Your task to perform on an android device: set an alarm Image 0: 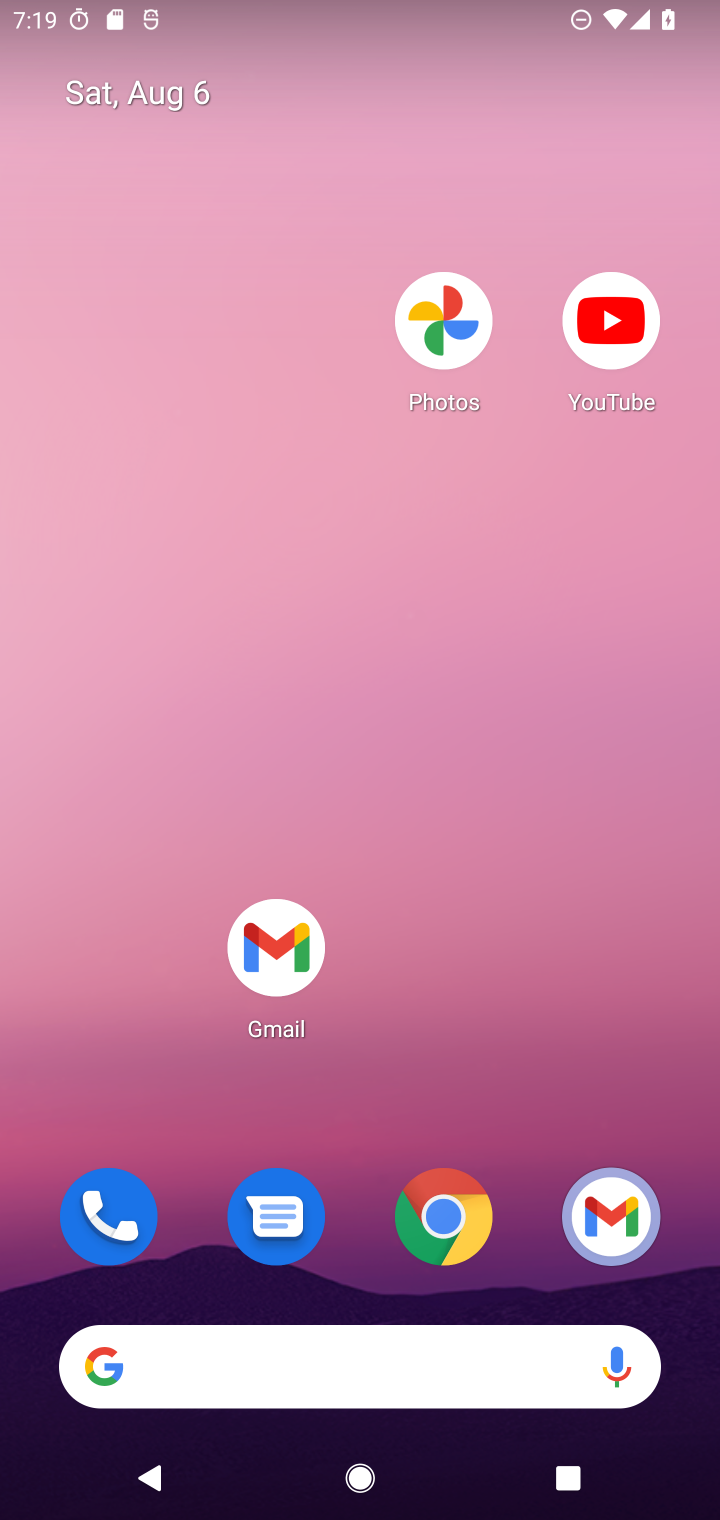
Step 0: drag from (527, 1062) to (576, 176)
Your task to perform on an android device: set an alarm Image 1: 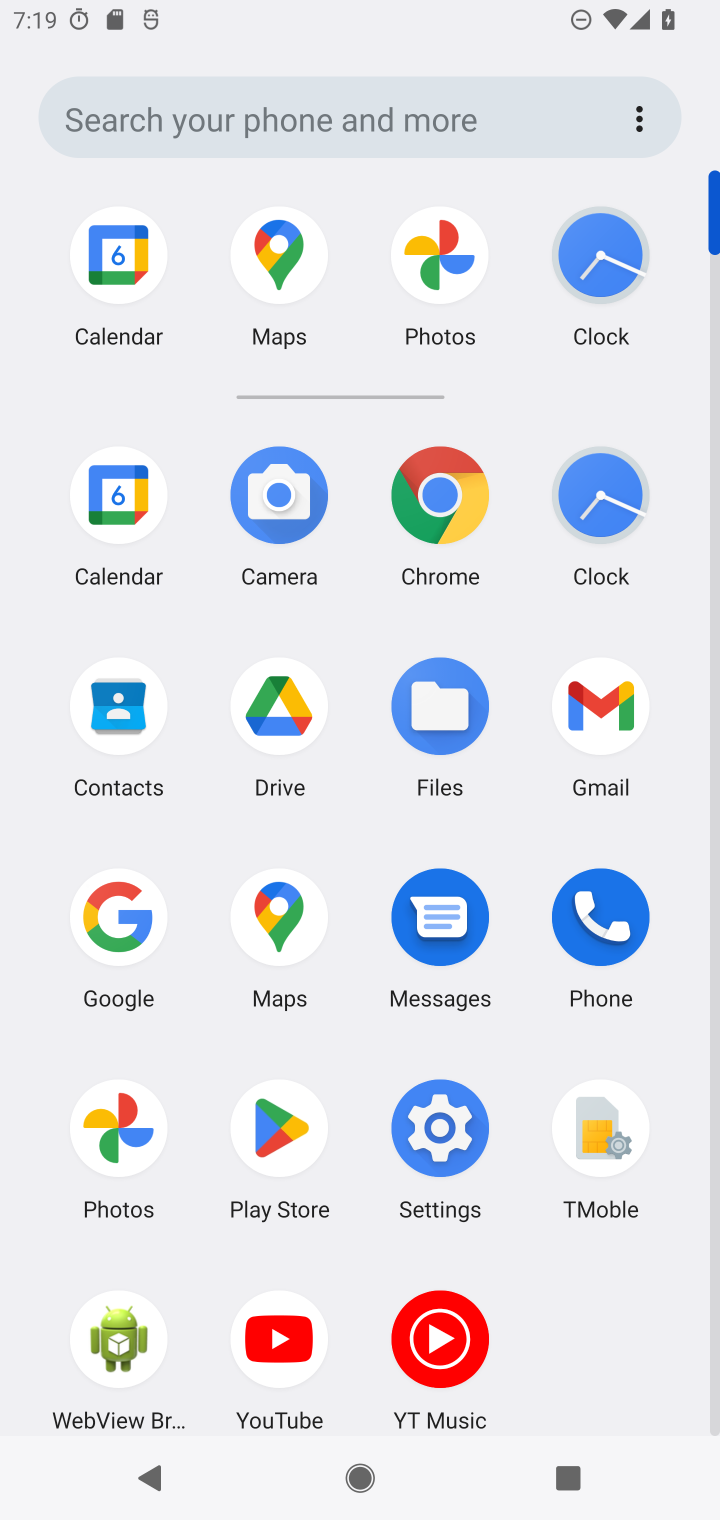
Step 1: click (589, 496)
Your task to perform on an android device: set an alarm Image 2: 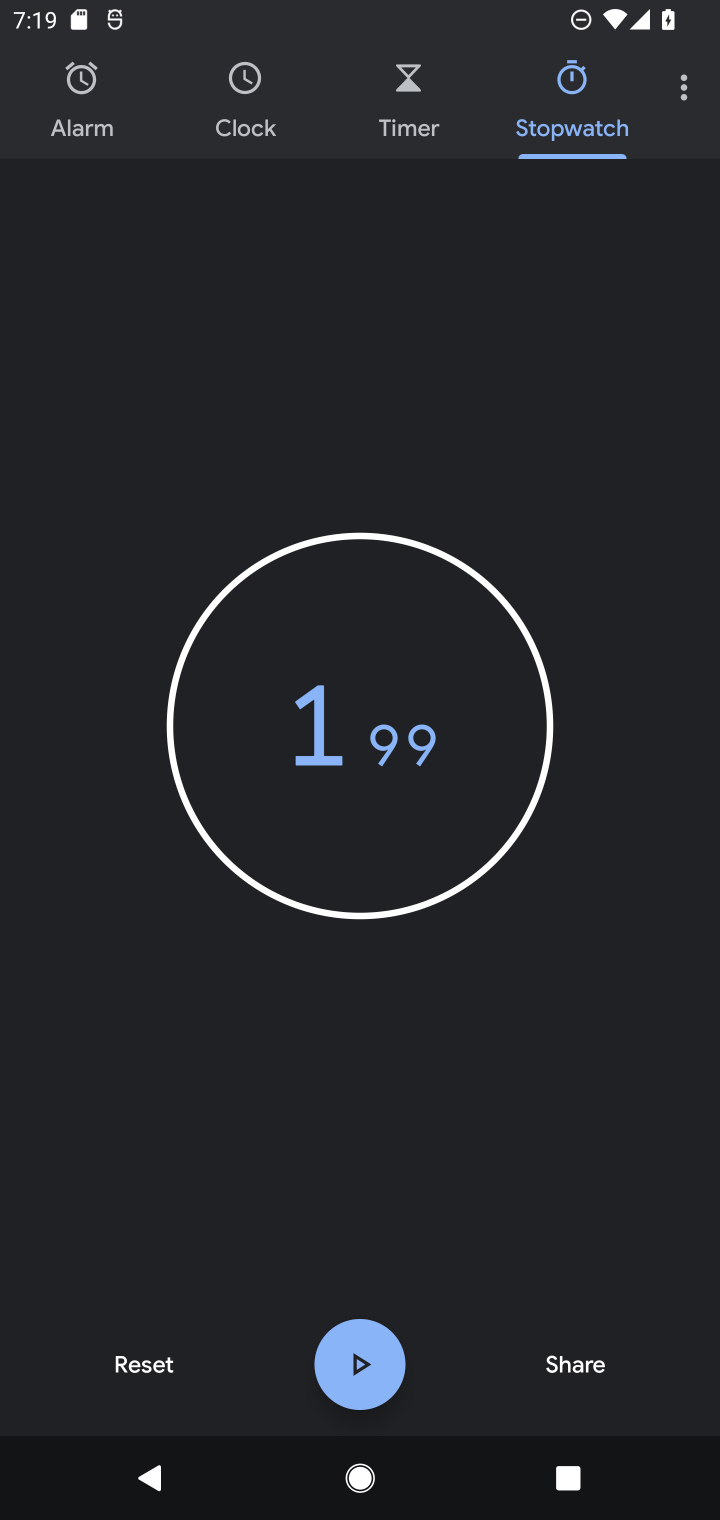
Step 2: click (79, 132)
Your task to perform on an android device: set an alarm Image 3: 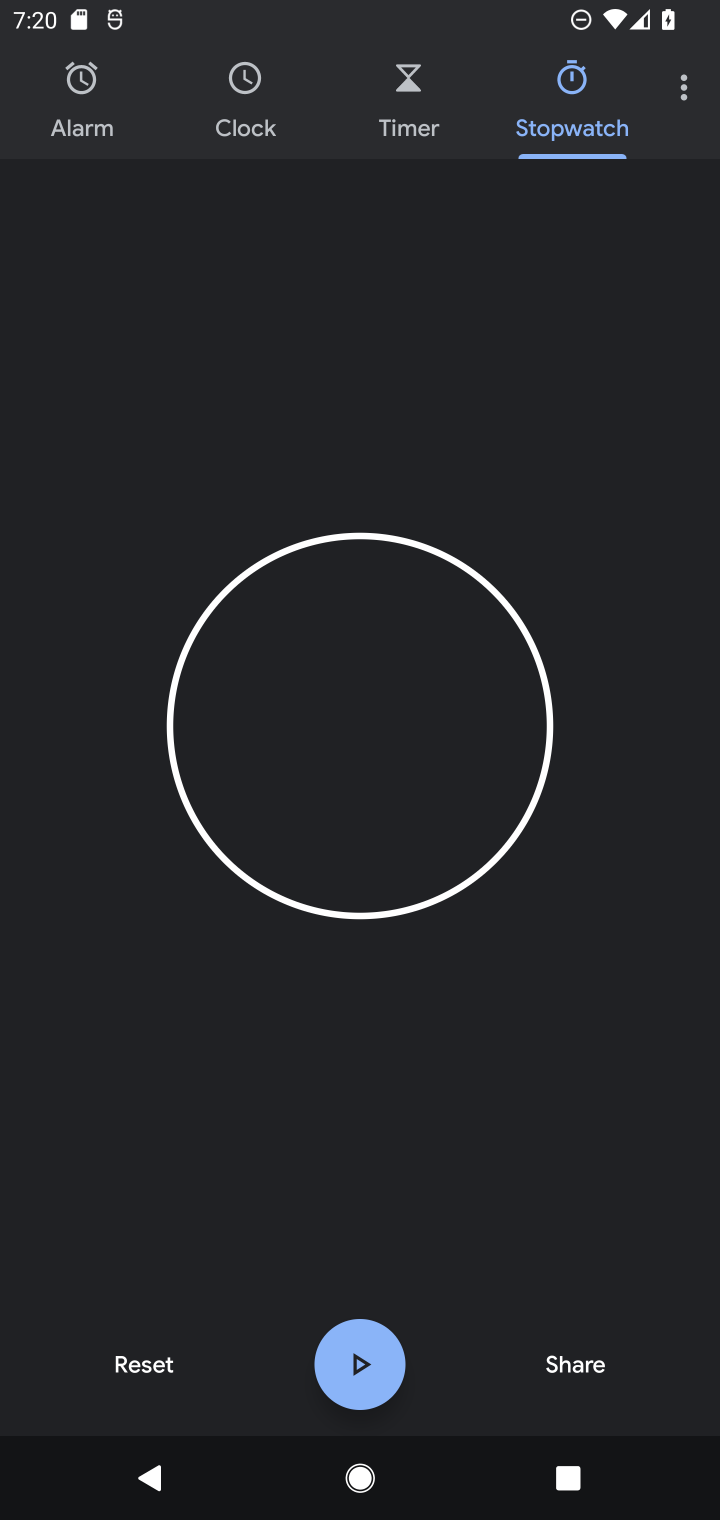
Step 3: click (47, 86)
Your task to perform on an android device: set an alarm Image 4: 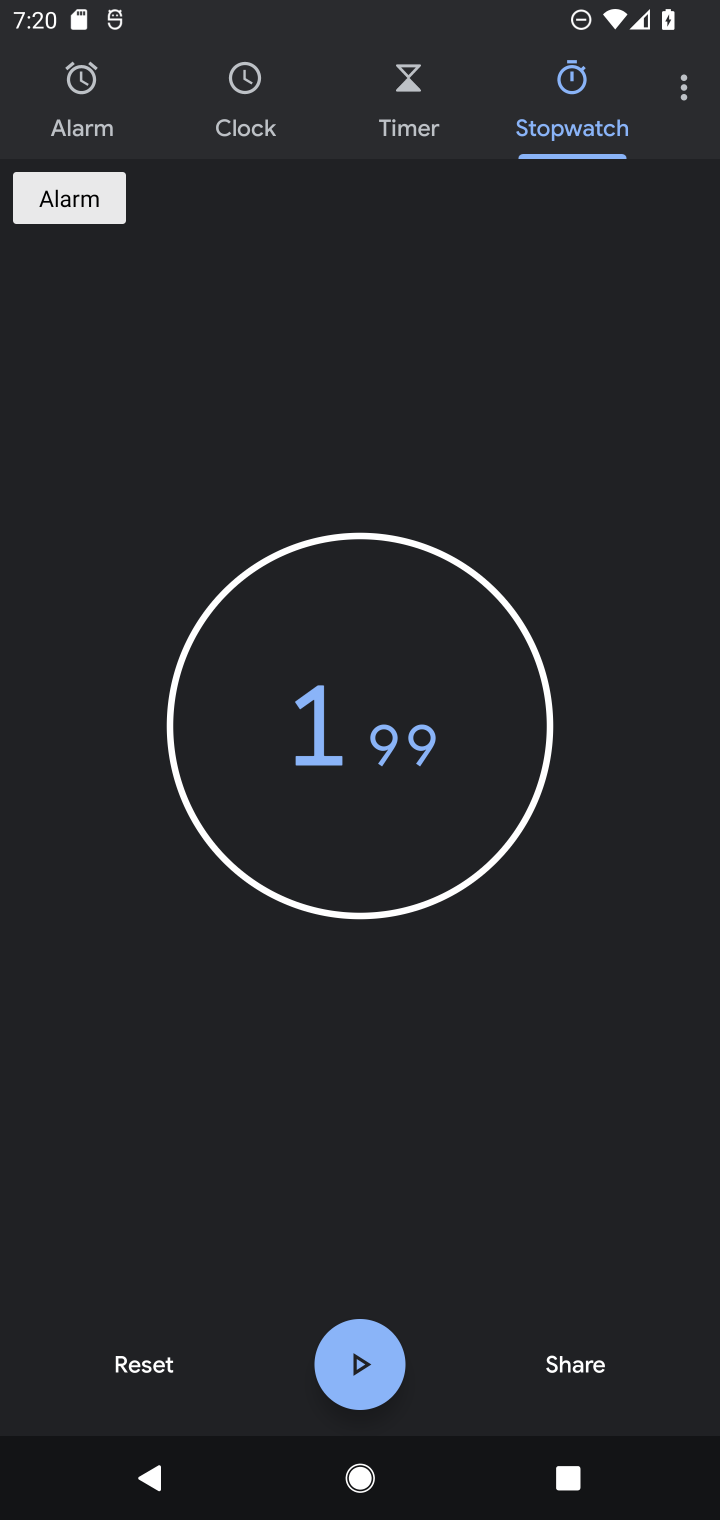
Step 4: click (86, 109)
Your task to perform on an android device: set an alarm Image 5: 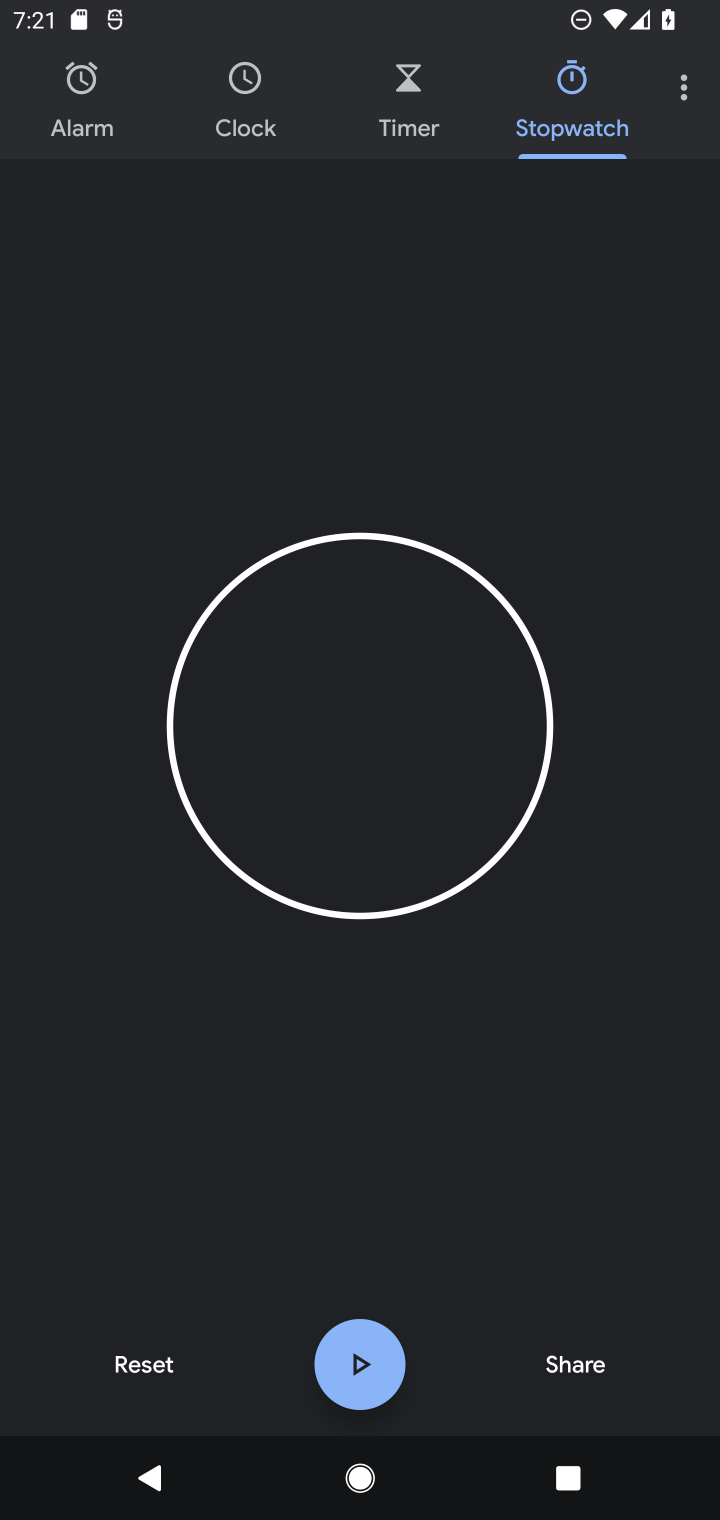
Step 5: click (93, 116)
Your task to perform on an android device: set an alarm Image 6: 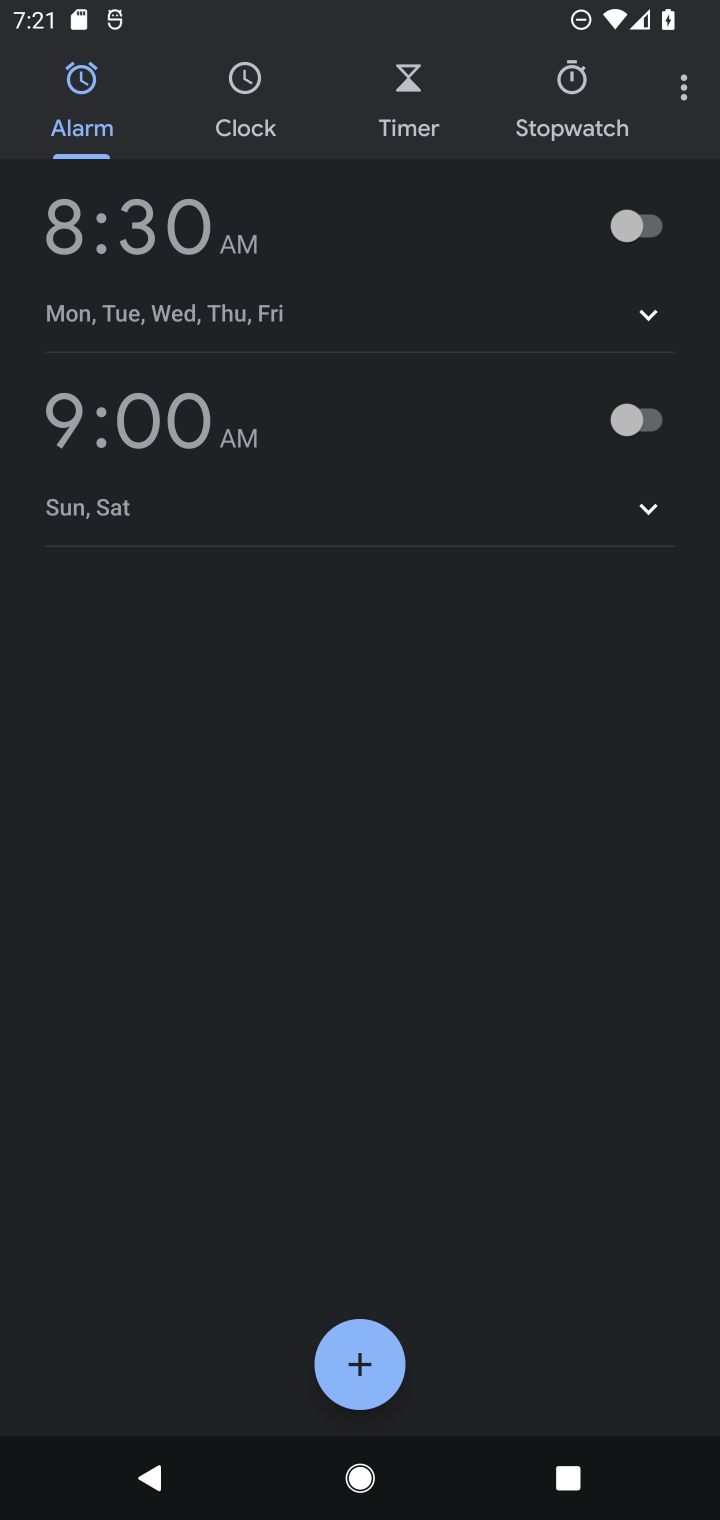
Step 6: click (403, 1372)
Your task to perform on an android device: set an alarm Image 7: 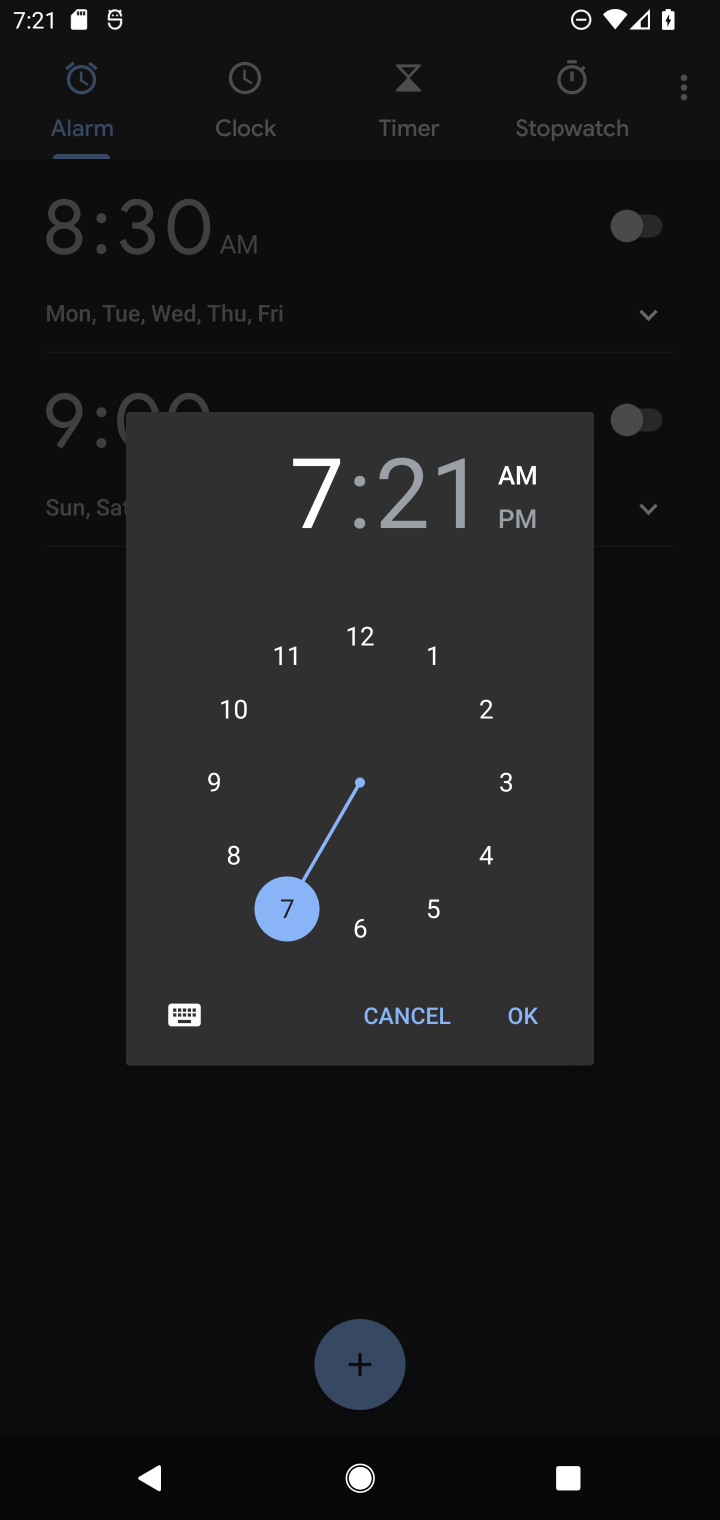
Step 7: click (534, 1014)
Your task to perform on an android device: set an alarm Image 8: 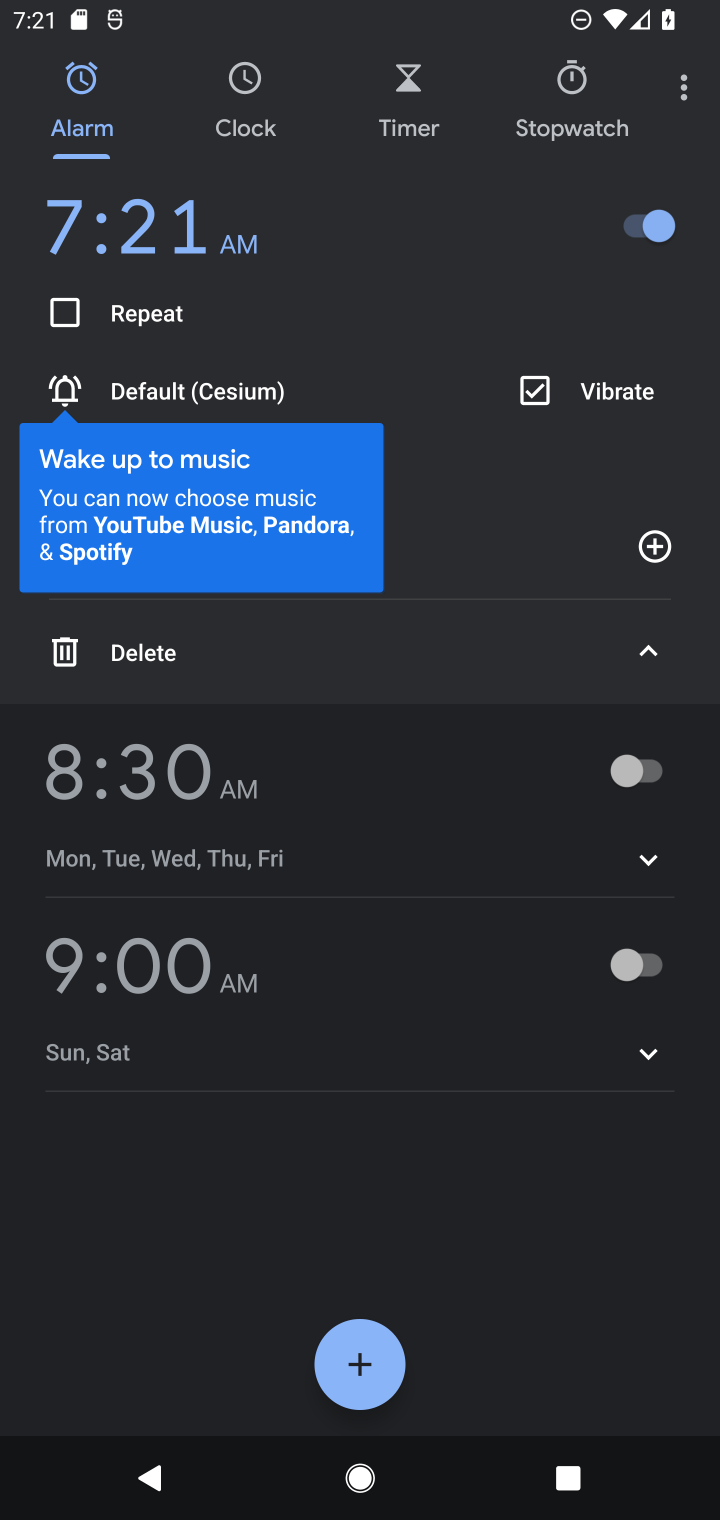
Step 8: task complete